Your task to perform on an android device: change text size in settings app Image 0: 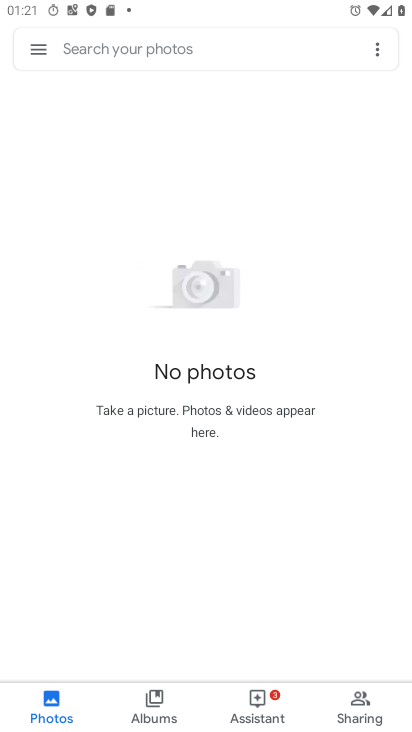
Step 0: press home button
Your task to perform on an android device: change text size in settings app Image 1: 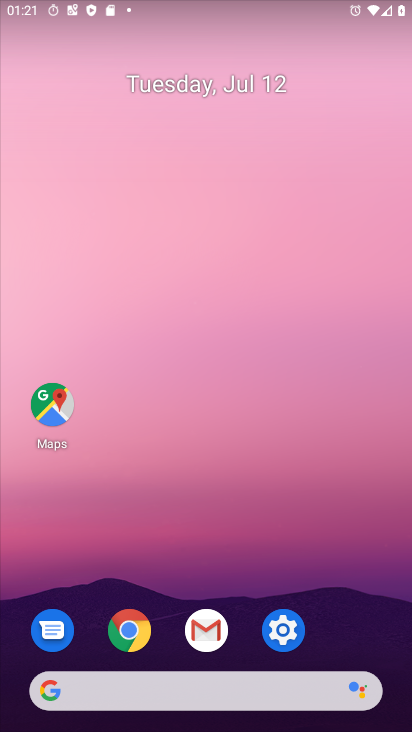
Step 1: click (272, 631)
Your task to perform on an android device: change text size in settings app Image 2: 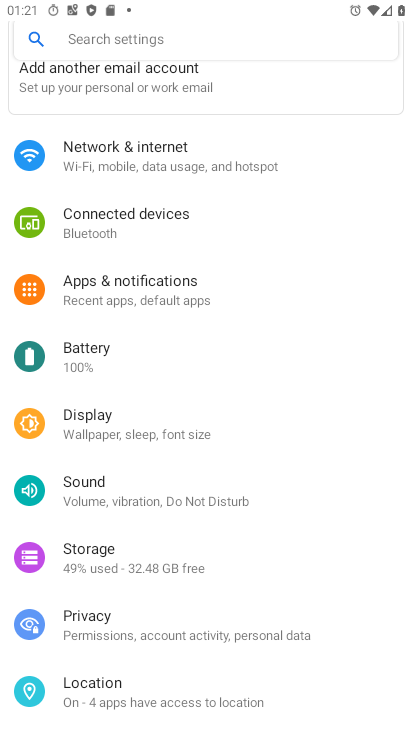
Step 2: click (154, 39)
Your task to perform on an android device: change text size in settings app Image 3: 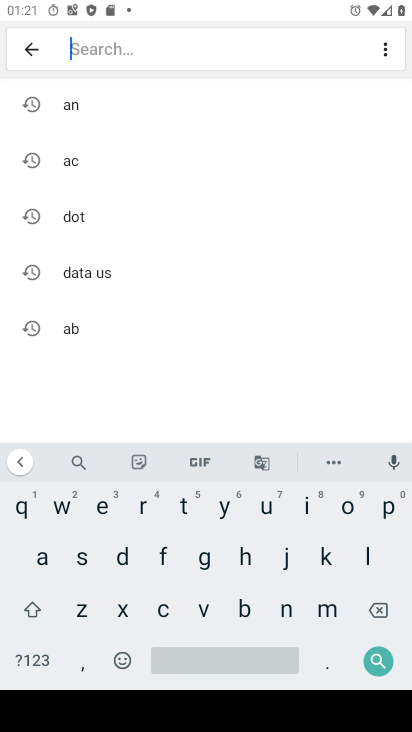
Step 3: click (73, 576)
Your task to perform on an android device: change text size in settings app Image 4: 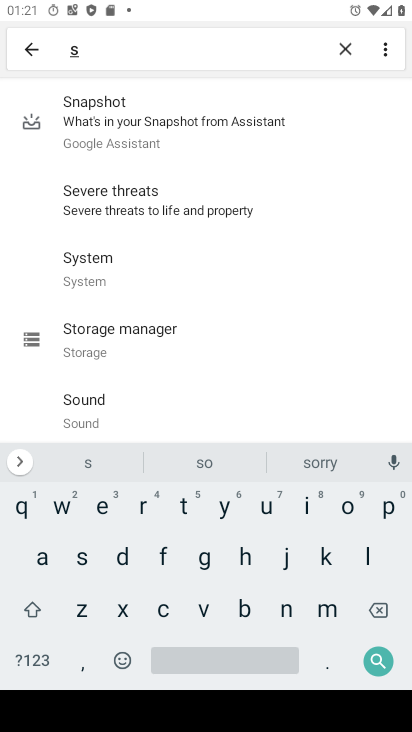
Step 4: click (310, 510)
Your task to perform on an android device: change text size in settings app Image 5: 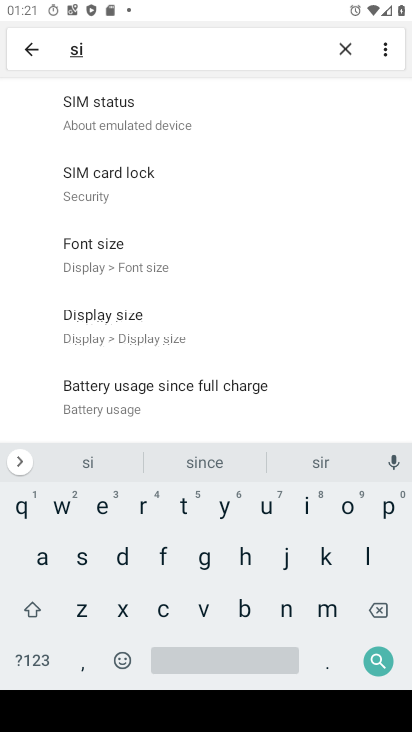
Step 5: click (86, 609)
Your task to perform on an android device: change text size in settings app Image 6: 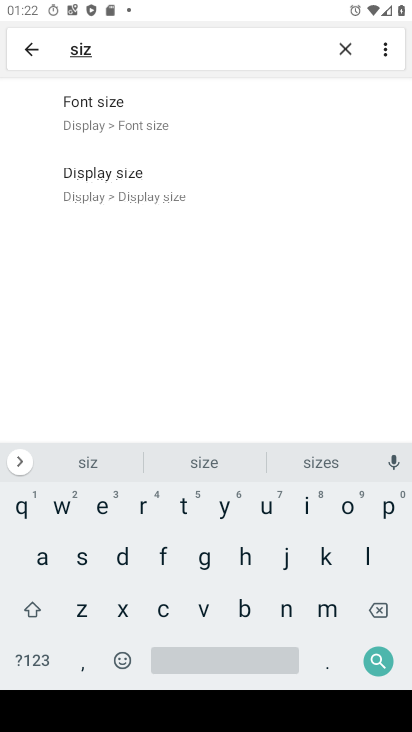
Step 6: click (98, 94)
Your task to perform on an android device: change text size in settings app Image 7: 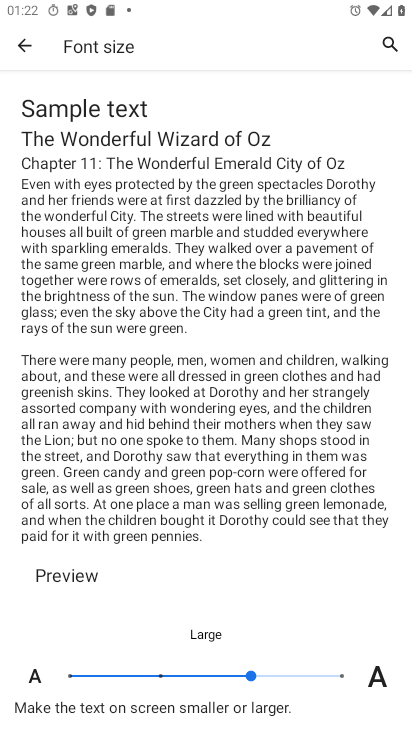
Step 7: click (159, 676)
Your task to perform on an android device: change text size in settings app Image 8: 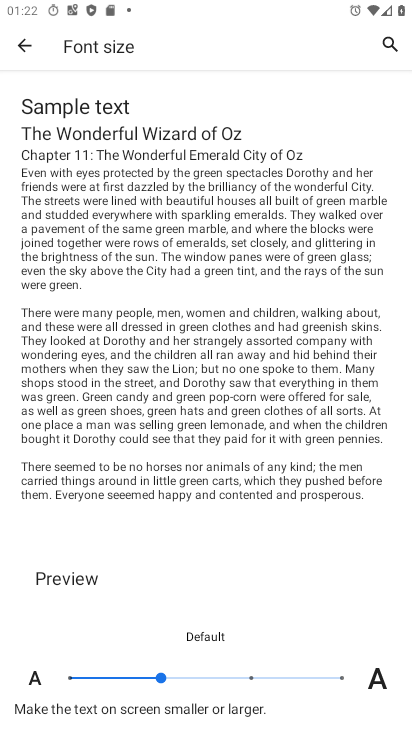
Step 8: task complete